Your task to perform on an android device: Go to display settings Image 0: 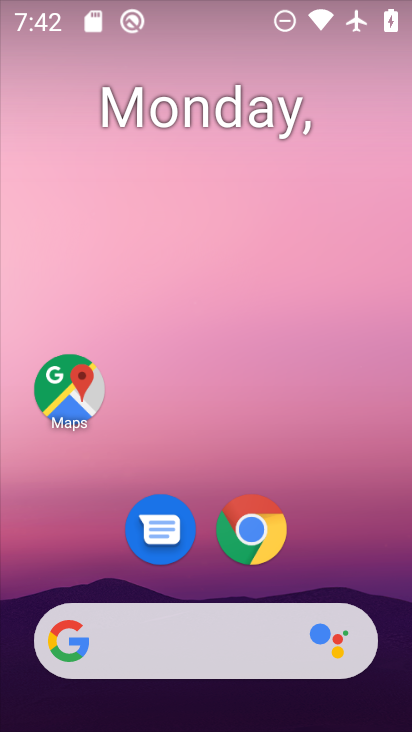
Step 0: drag from (324, 506) to (273, 114)
Your task to perform on an android device: Go to display settings Image 1: 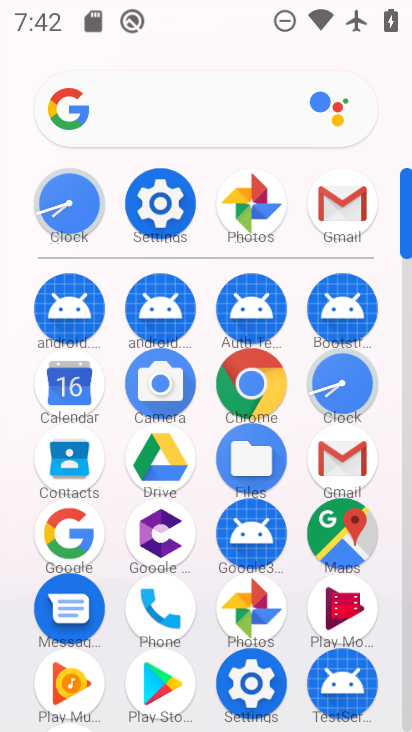
Step 1: click (160, 207)
Your task to perform on an android device: Go to display settings Image 2: 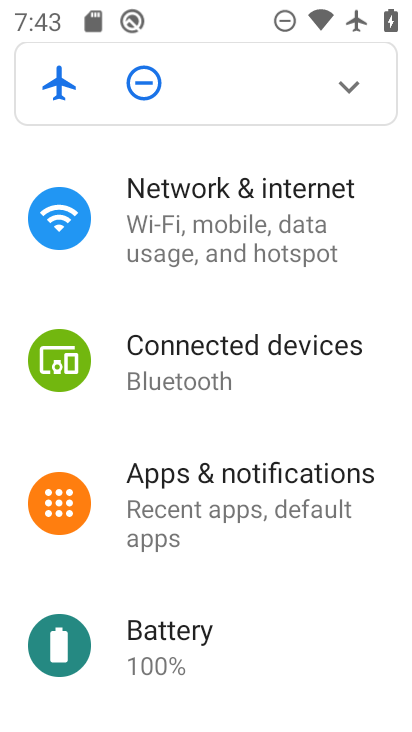
Step 2: drag from (280, 548) to (282, 30)
Your task to perform on an android device: Go to display settings Image 3: 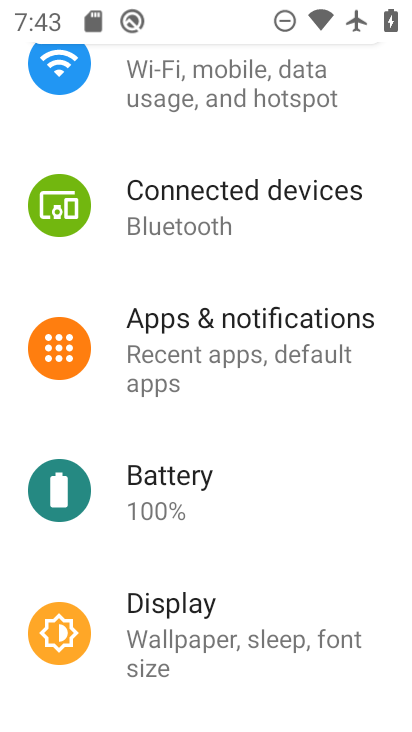
Step 3: click (178, 596)
Your task to perform on an android device: Go to display settings Image 4: 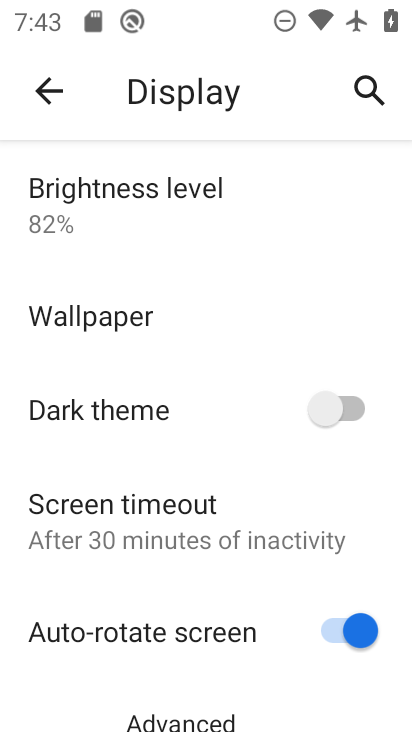
Step 4: task complete